Your task to perform on an android device: allow cookies in the chrome app Image 0: 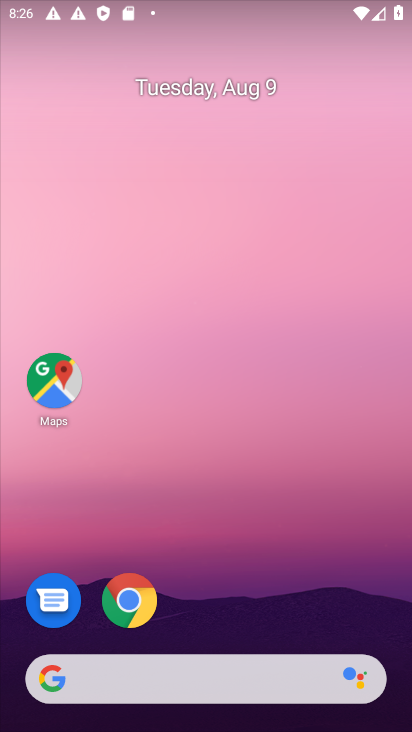
Step 0: press home button
Your task to perform on an android device: allow cookies in the chrome app Image 1: 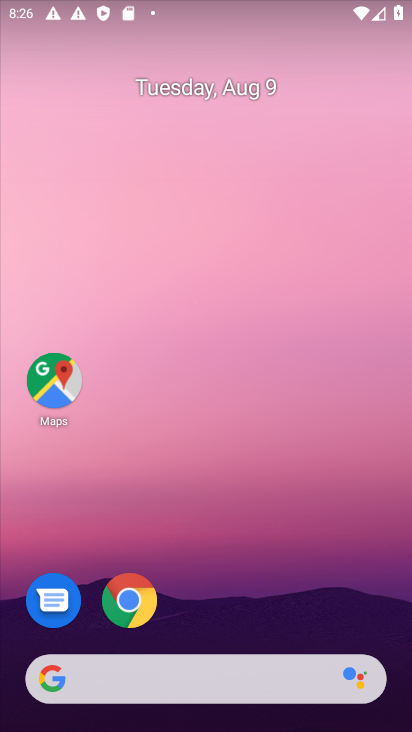
Step 1: click (127, 608)
Your task to perform on an android device: allow cookies in the chrome app Image 2: 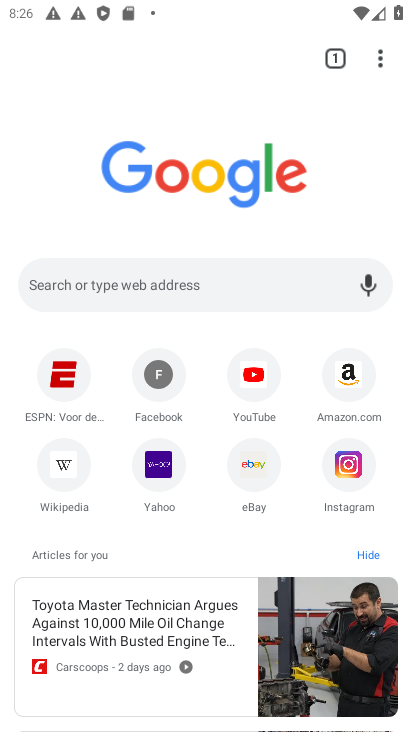
Step 2: drag from (377, 60) to (221, 473)
Your task to perform on an android device: allow cookies in the chrome app Image 3: 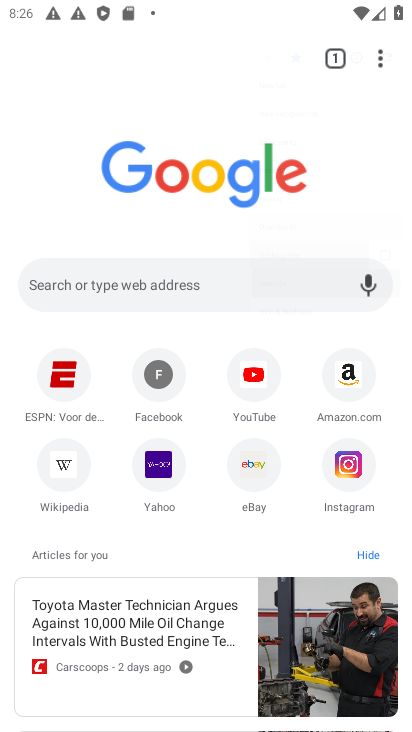
Step 3: click (146, 502)
Your task to perform on an android device: allow cookies in the chrome app Image 4: 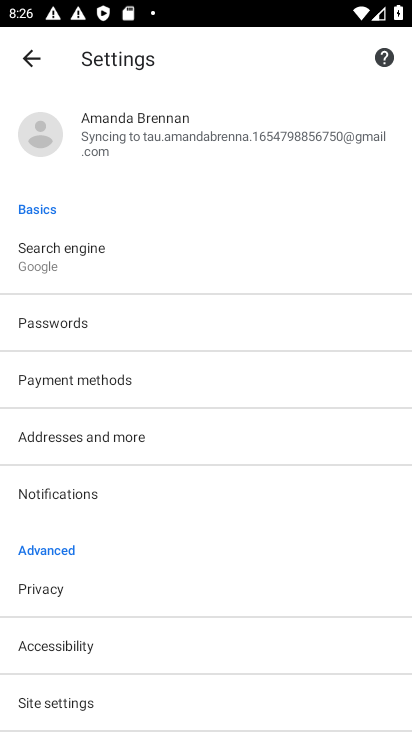
Step 4: click (53, 710)
Your task to perform on an android device: allow cookies in the chrome app Image 5: 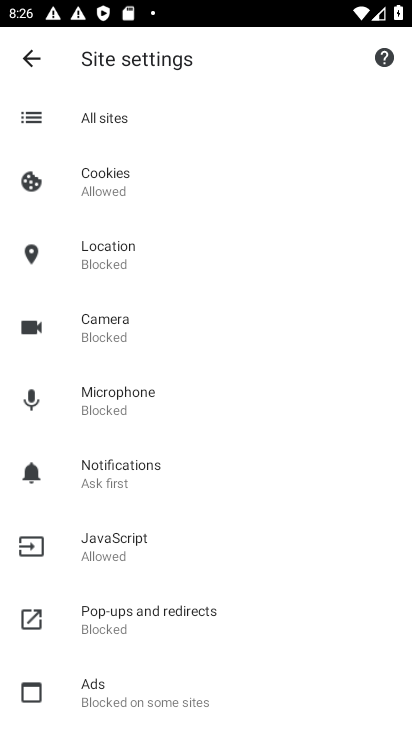
Step 5: click (110, 181)
Your task to perform on an android device: allow cookies in the chrome app Image 6: 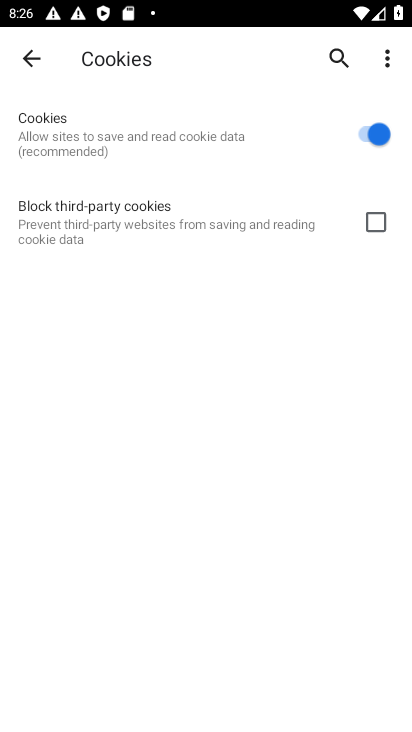
Step 6: task complete